Your task to perform on an android device: Go to sound settings Image 0: 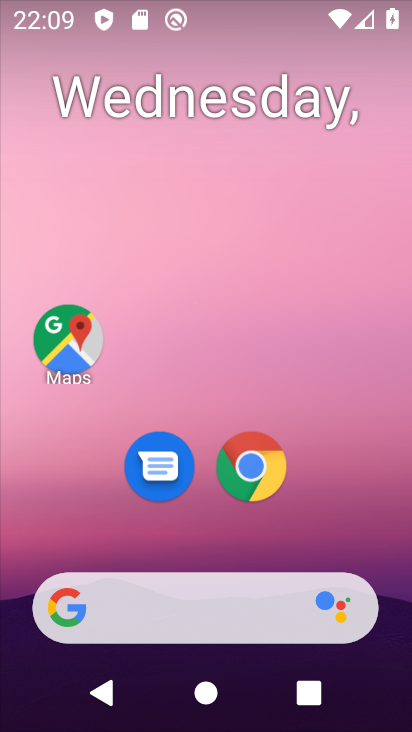
Step 0: drag from (207, 545) to (228, 12)
Your task to perform on an android device: Go to sound settings Image 1: 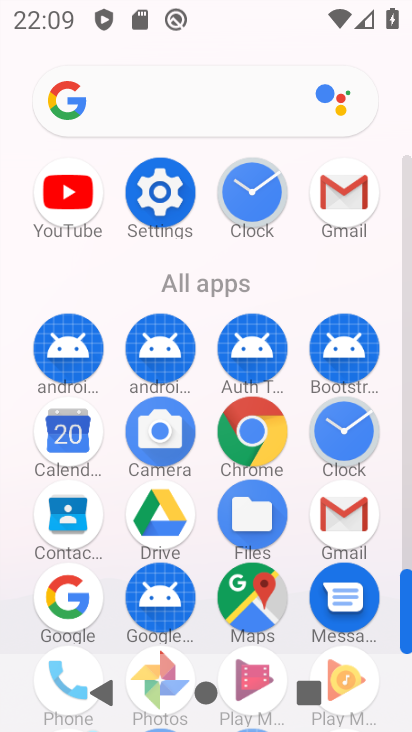
Step 1: click (157, 184)
Your task to perform on an android device: Go to sound settings Image 2: 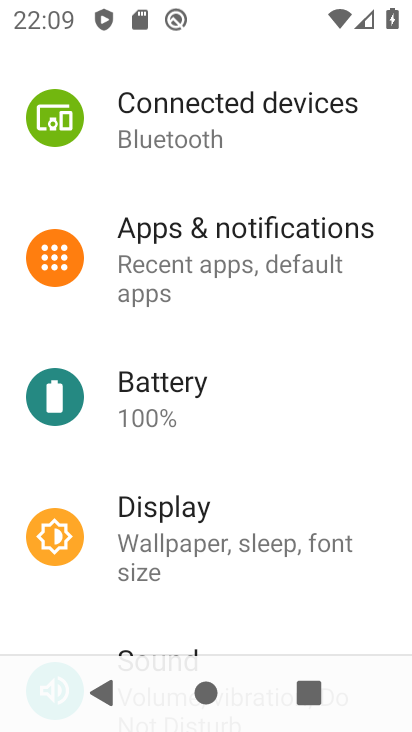
Step 2: drag from (204, 597) to (247, 314)
Your task to perform on an android device: Go to sound settings Image 3: 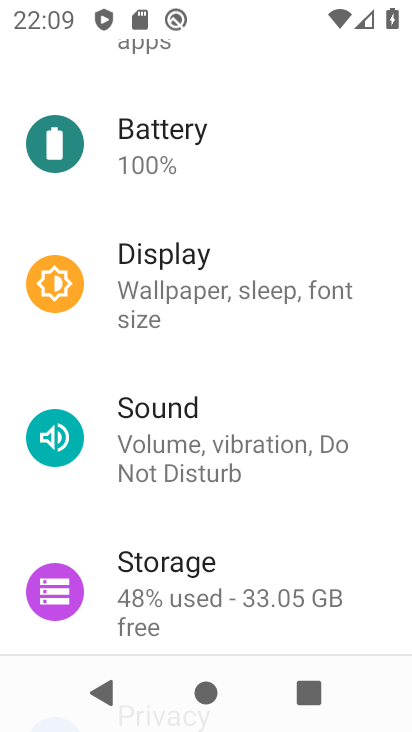
Step 3: click (216, 418)
Your task to perform on an android device: Go to sound settings Image 4: 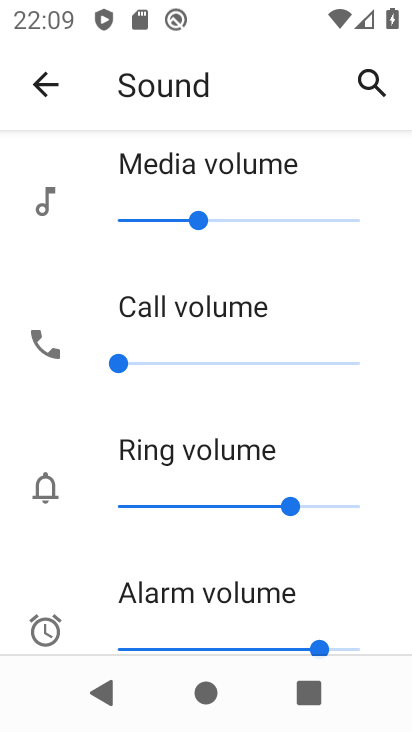
Step 4: drag from (85, 606) to (146, 76)
Your task to perform on an android device: Go to sound settings Image 5: 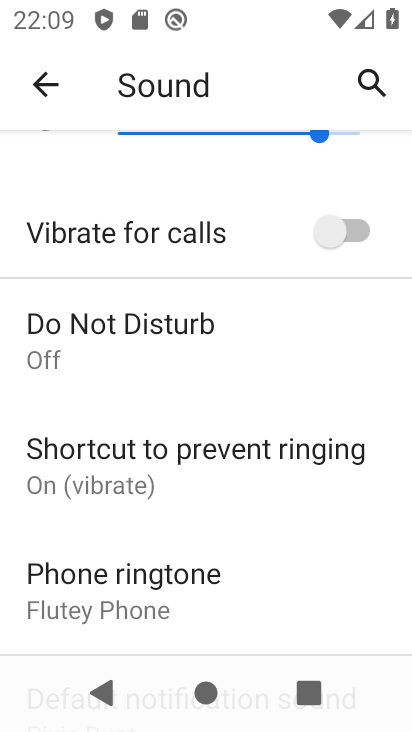
Step 5: drag from (187, 588) to (213, 185)
Your task to perform on an android device: Go to sound settings Image 6: 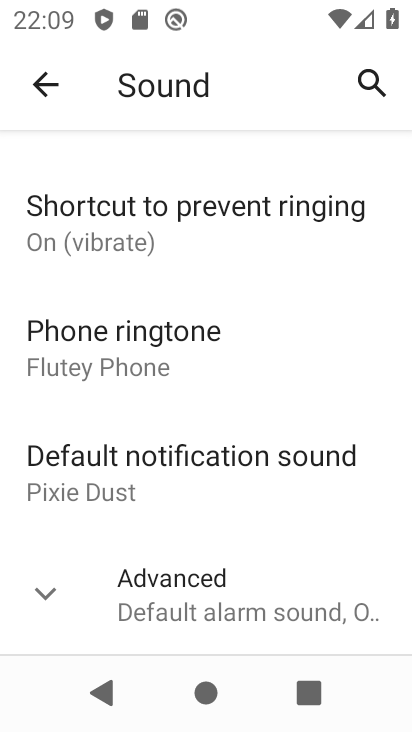
Step 6: click (42, 591)
Your task to perform on an android device: Go to sound settings Image 7: 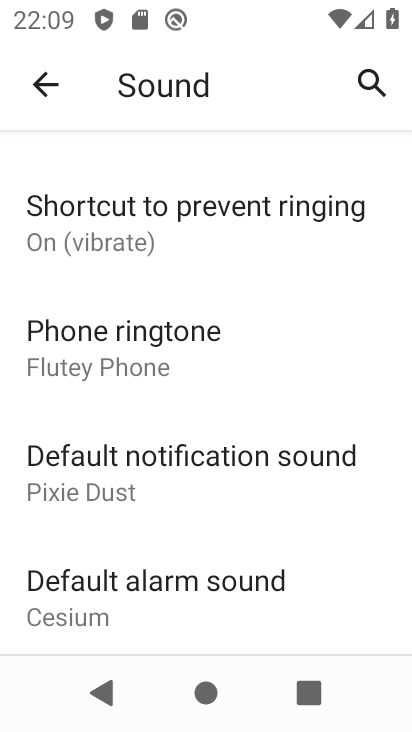
Step 7: task complete